Your task to perform on an android device: set an alarm Image 0: 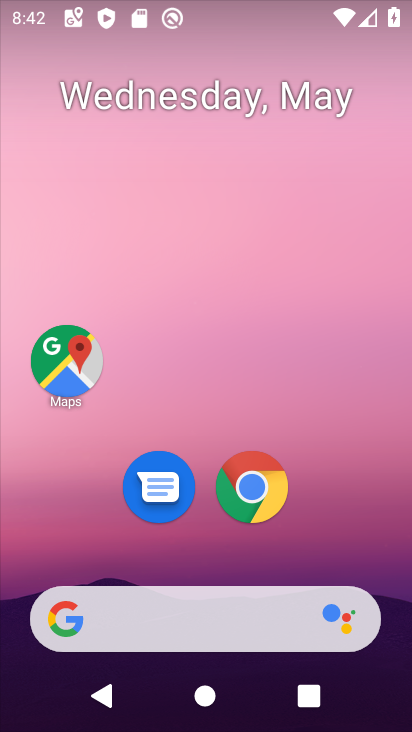
Step 0: drag from (204, 561) to (246, 31)
Your task to perform on an android device: set an alarm Image 1: 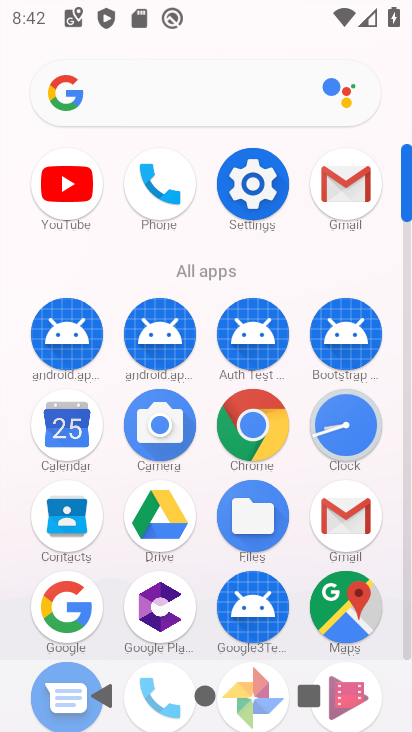
Step 1: click (344, 412)
Your task to perform on an android device: set an alarm Image 2: 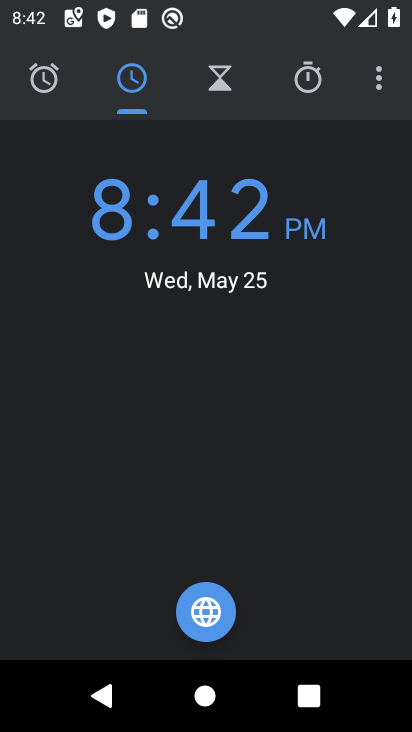
Step 2: click (46, 78)
Your task to perform on an android device: set an alarm Image 3: 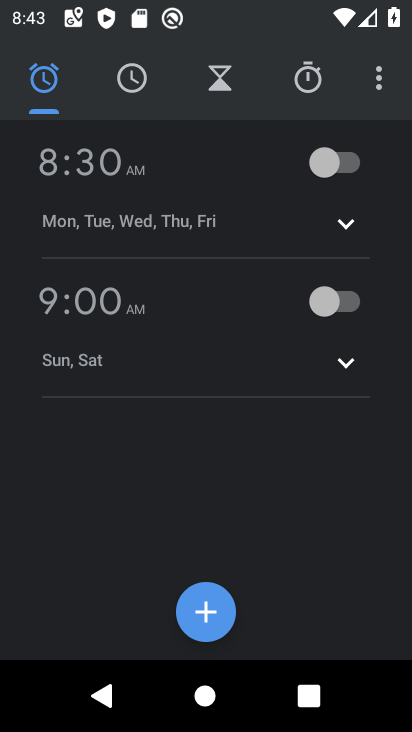
Step 3: click (345, 158)
Your task to perform on an android device: set an alarm Image 4: 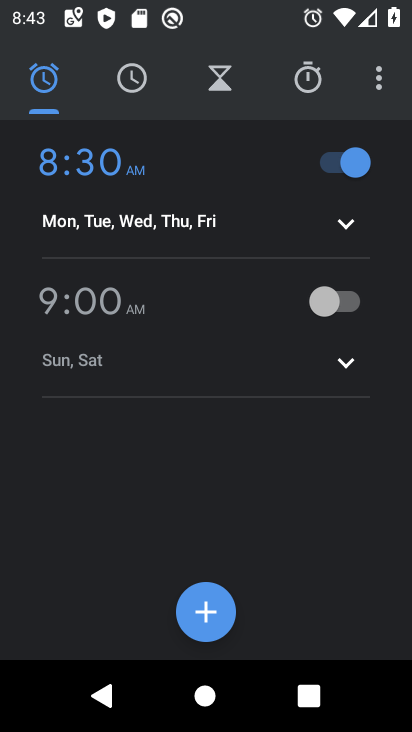
Step 4: task complete